Your task to perform on an android device: add a contact in the contacts app Image 0: 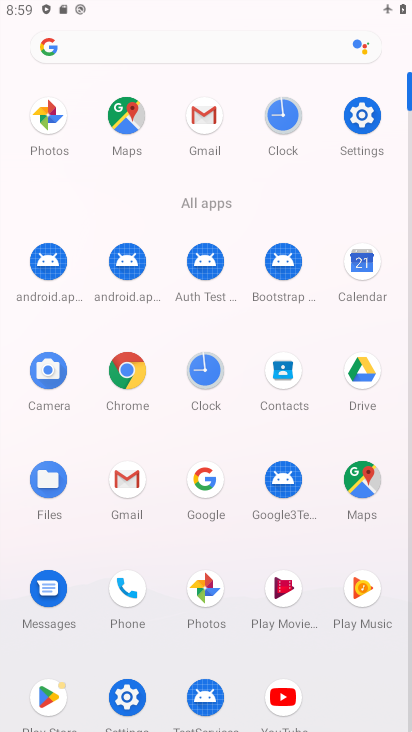
Step 0: press back button
Your task to perform on an android device: add a contact in the contacts app Image 1: 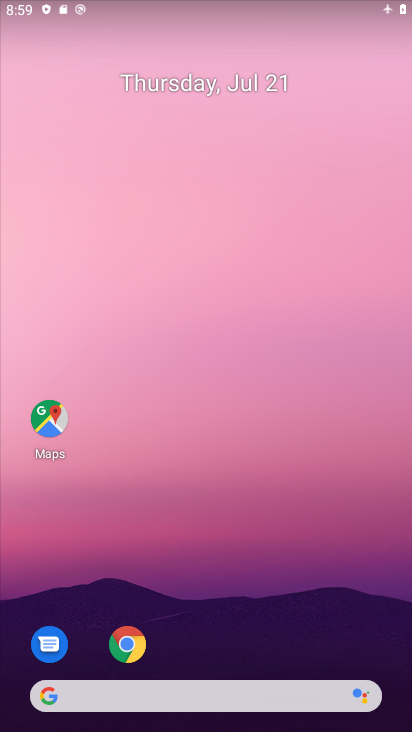
Step 1: drag from (268, 655) to (259, 217)
Your task to perform on an android device: add a contact in the contacts app Image 2: 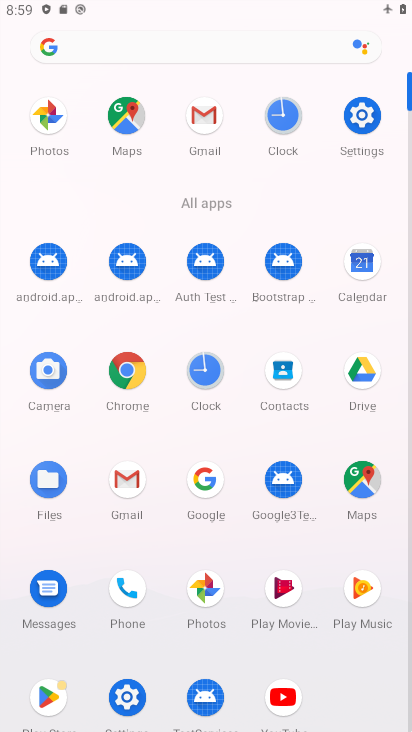
Step 2: click (290, 375)
Your task to perform on an android device: add a contact in the contacts app Image 3: 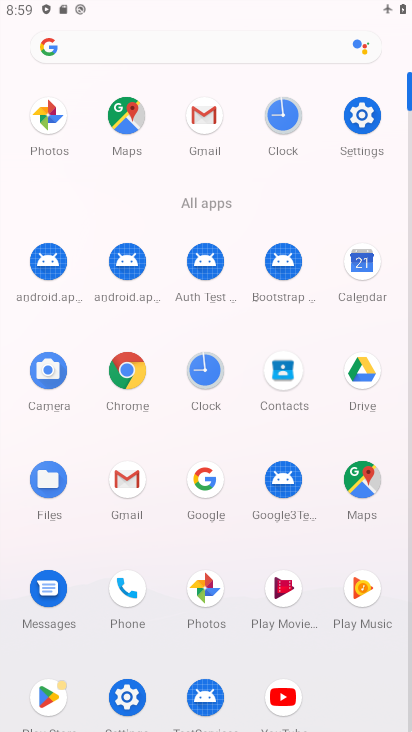
Step 3: click (288, 373)
Your task to perform on an android device: add a contact in the contacts app Image 4: 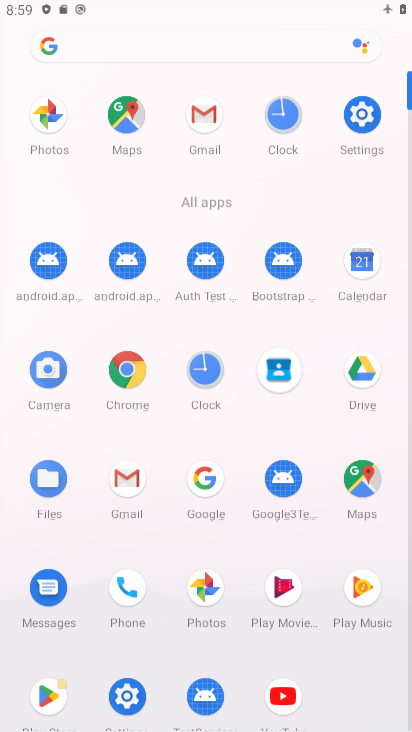
Step 4: click (288, 373)
Your task to perform on an android device: add a contact in the contacts app Image 5: 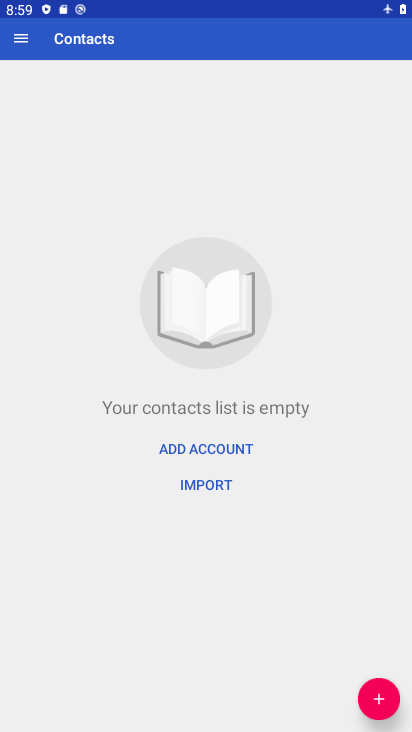
Step 5: click (374, 703)
Your task to perform on an android device: add a contact in the contacts app Image 6: 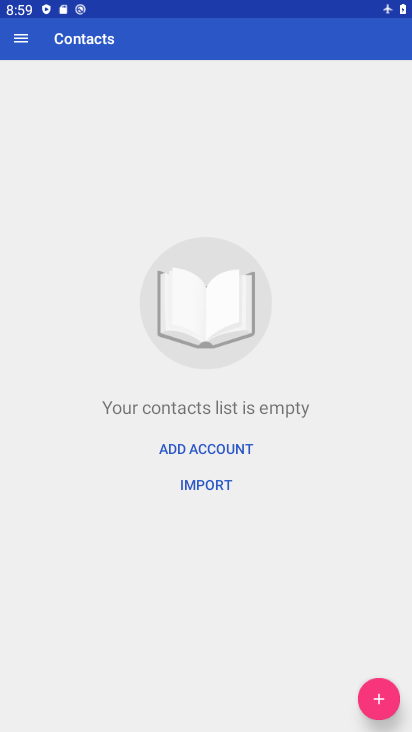
Step 6: click (374, 703)
Your task to perform on an android device: add a contact in the contacts app Image 7: 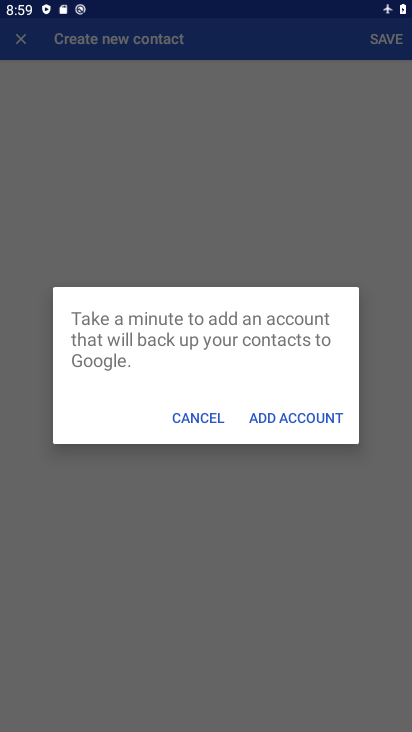
Step 7: click (303, 409)
Your task to perform on an android device: add a contact in the contacts app Image 8: 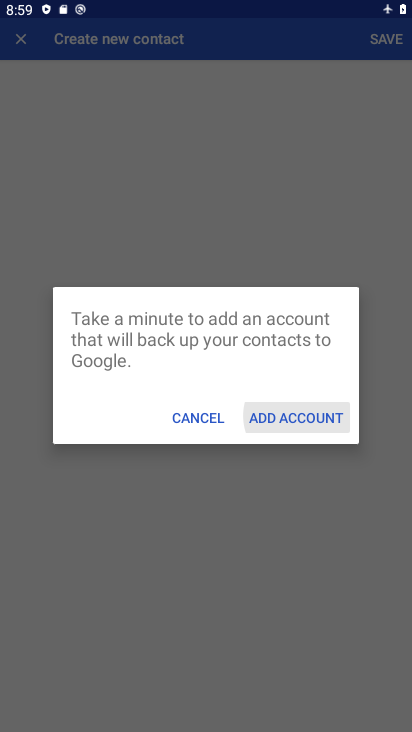
Step 8: click (303, 409)
Your task to perform on an android device: add a contact in the contacts app Image 9: 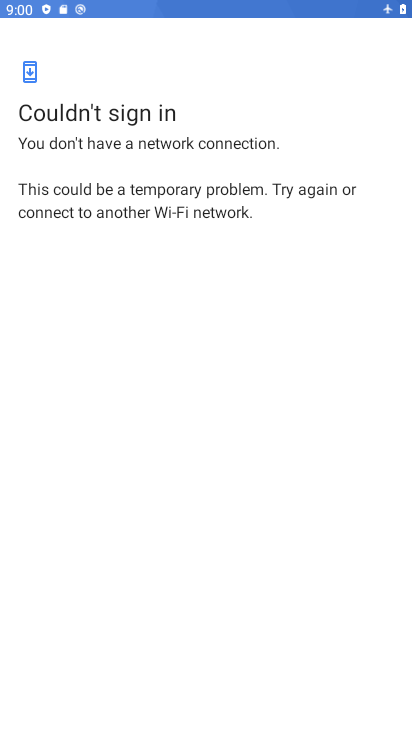
Step 9: click (126, 412)
Your task to perform on an android device: add a contact in the contacts app Image 10: 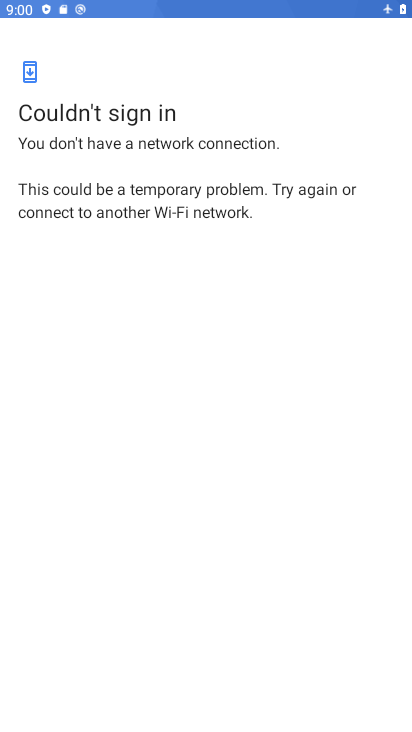
Step 10: task complete